Your task to perform on an android device: Open location settings Image 0: 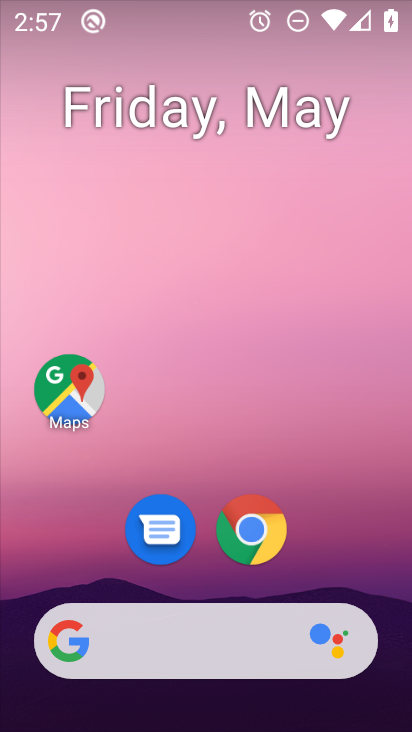
Step 0: drag from (398, 670) to (389, 245)
Your task to perform on an android device: Open location settings Image 1: 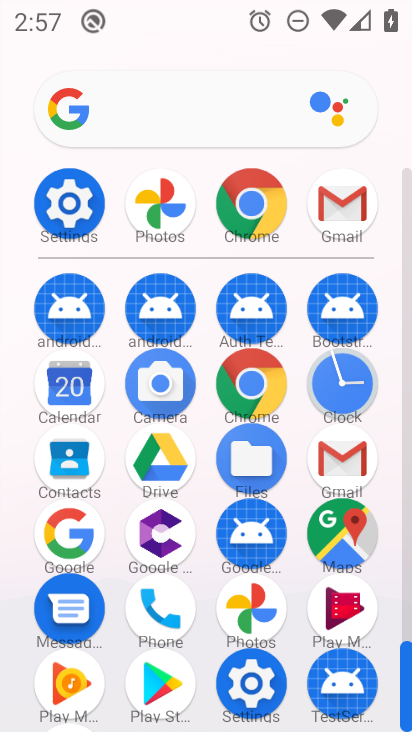
Step 1: click (256, 695)
Your task to perform on an android device: Open location settings Image 2: 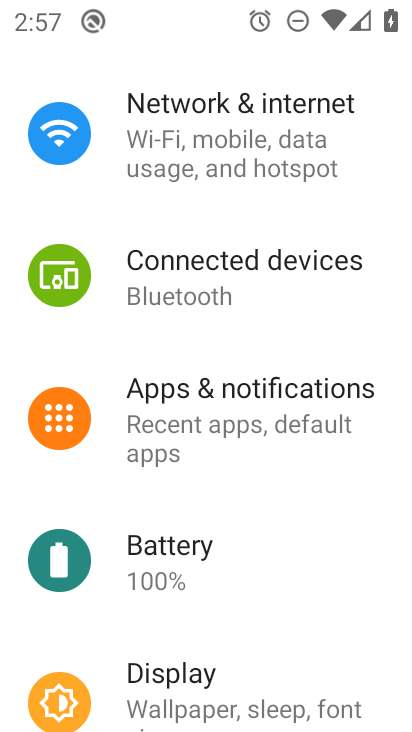
Step 2: drag from (315, 672) to (322, 408)
Your task to perform on an android device: Open location settings Image 3: 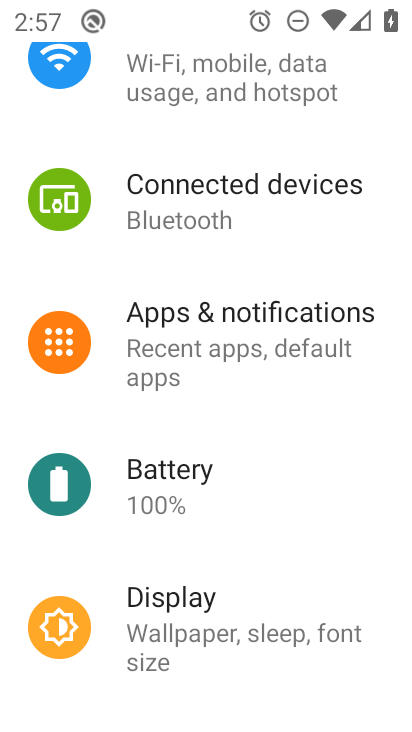
Step 3: drag from (389, 706) to (410, 145)
Your task to perform on an android device: Open location settings Image 4: 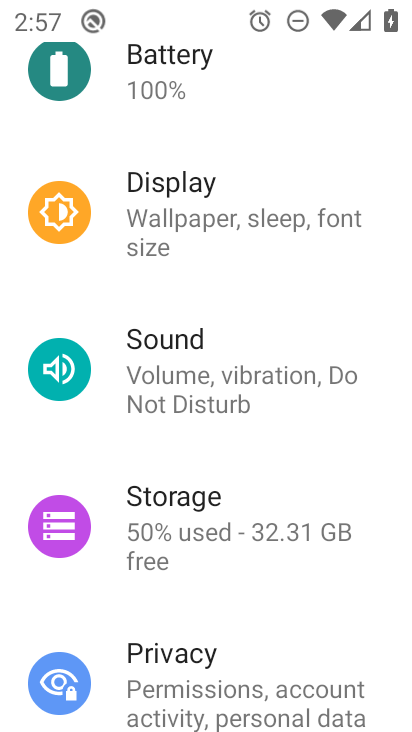
Step 4: drag from (383, 620) to (391, 209)
Your task to perform on an android device: Open location settings Image 5: 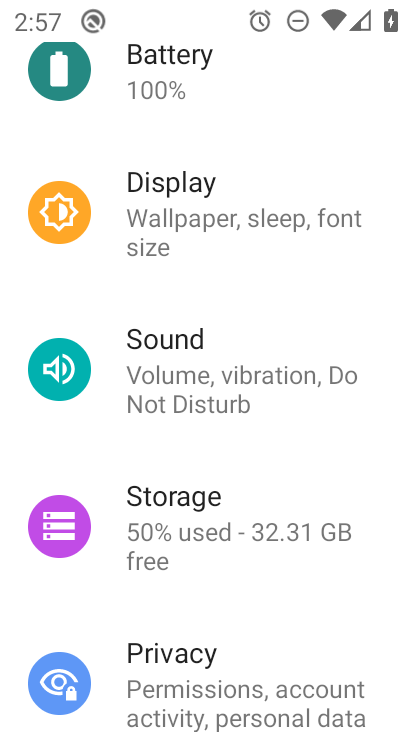
Step 5: drag from (389, 703) to (401, 187)
Your task to perform on an android device: Open location settings Image 6: 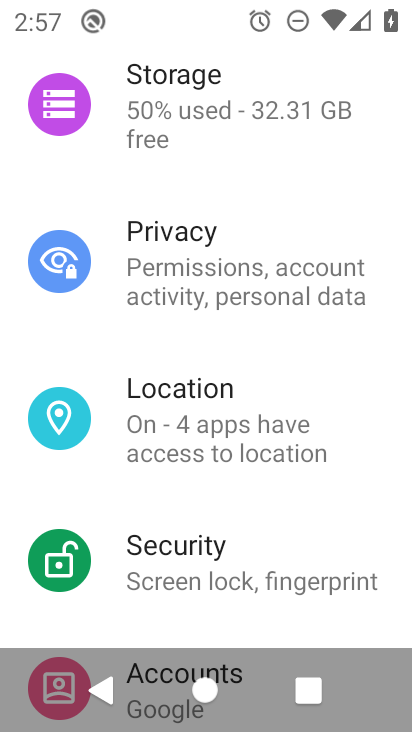
Step 6: click (188, 412)
Your task to perform on an android device: Open location settings Image 7: 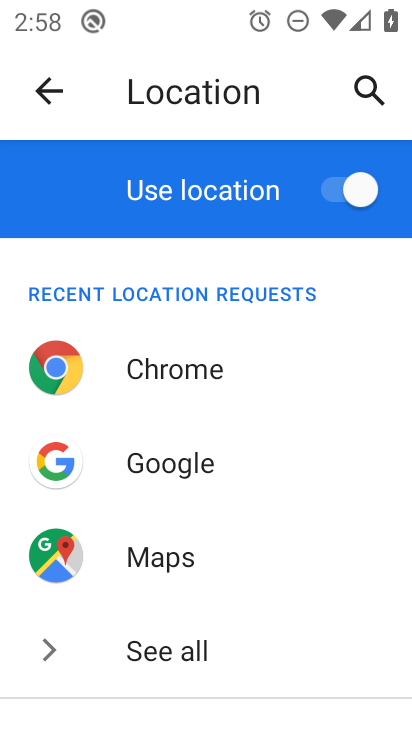
Step 7: task complete